Your task to perform on an android device: refresh tabs in the chrome app Image 0: 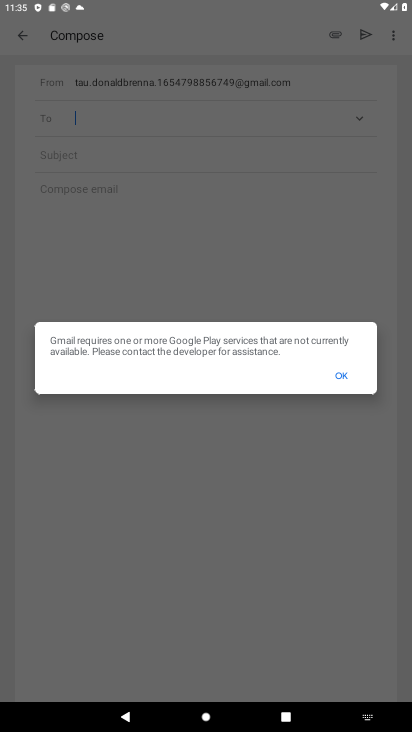
Step 0: press home button
Your task to perform on an android device: refresh tabs in the chrome app Image 1: 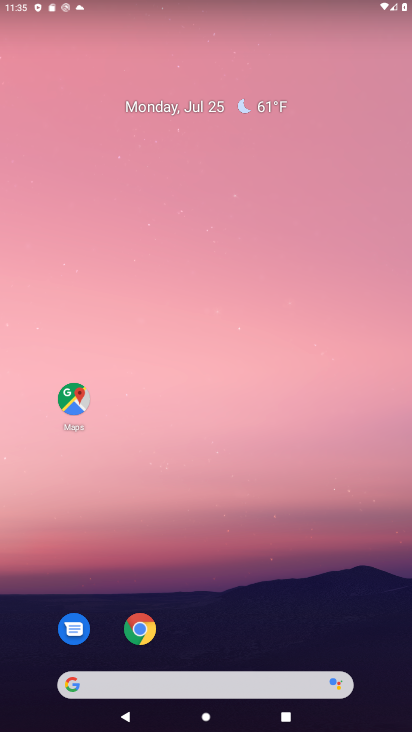
Step 1: drag from (282, 277) to (314, 149)
Your task to perform on an android device: refresh tabs in the chrome app Image 2: 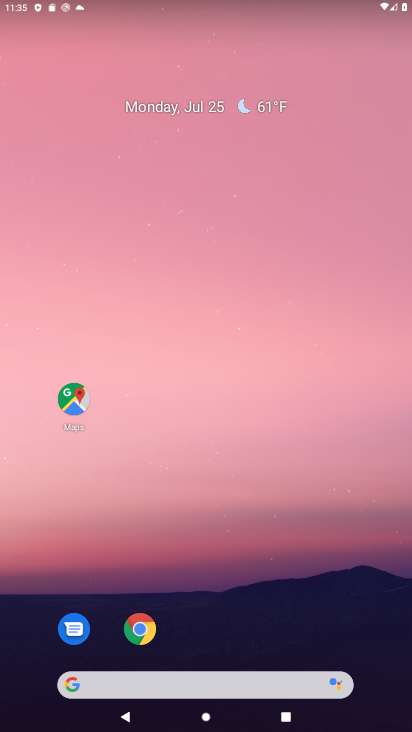
Step 2: click (141, 625)
Your task to perform on an android device: refresh tabs in the chrome app Image 3: 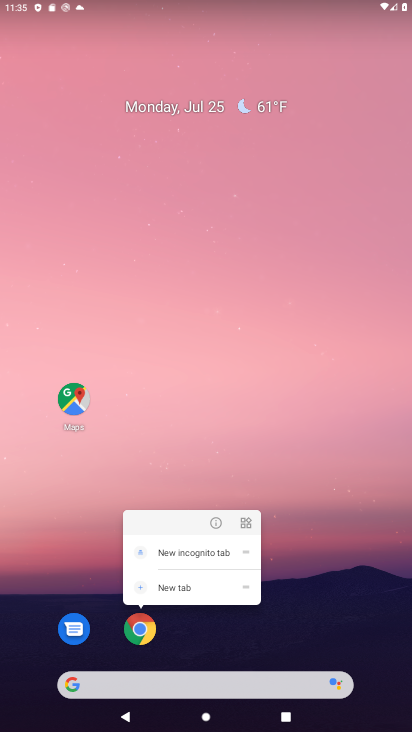
Step 3: click (216, 528)
Your task to perform on an android device: refresh tabs in the chrome app Image 4: 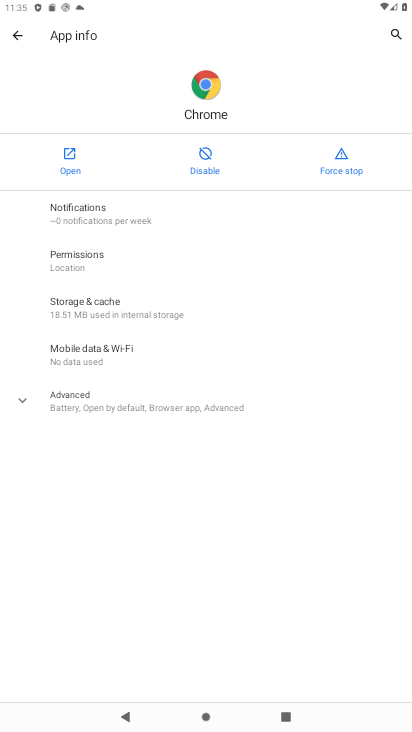
Step 4: click (65, 178)
Your task to perform on an android device: refresh tabs in the chrome app Image 5: 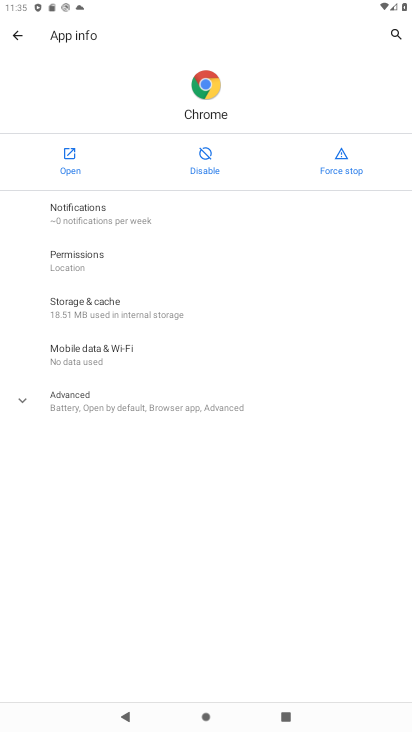
Step 5: click (68, 158)
Your task to perform on an android device: refresh tabs in the chrome app Image 6: 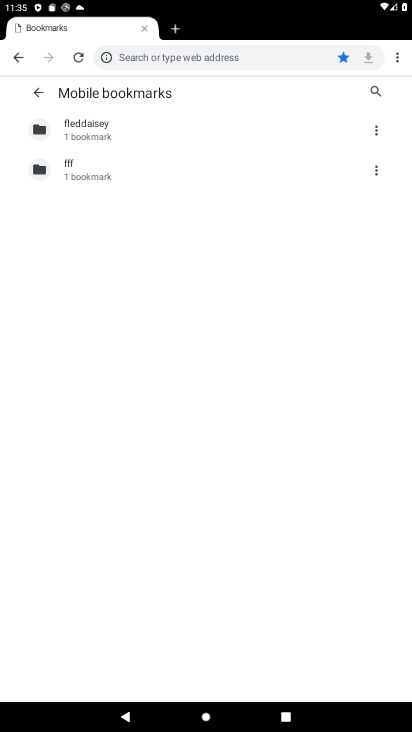
Step 6: click (75, 57)
Your task to perform on an android device: refresh tabs in the chrome app Image 7: 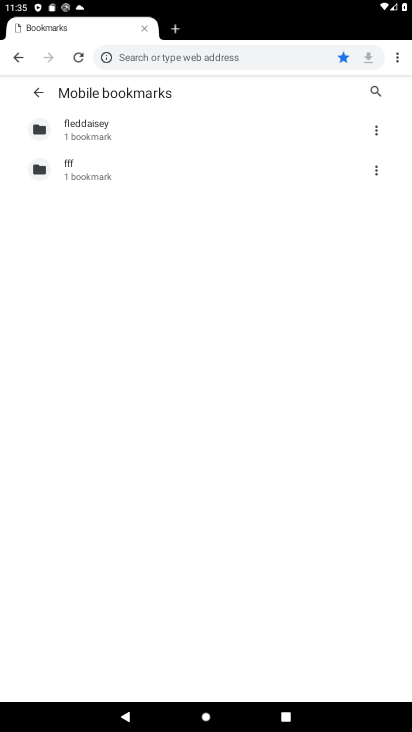
Step 7: task complete